Your task to perform on an android device: remove spam from my inbox in the gmail app Image 0: 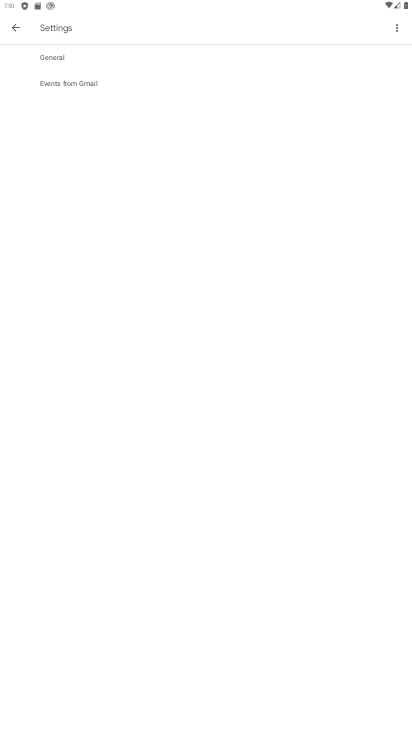
Step 0: press home button
Your task to perform on an android device: remove spam from my inbox in the gmail app Image 1: 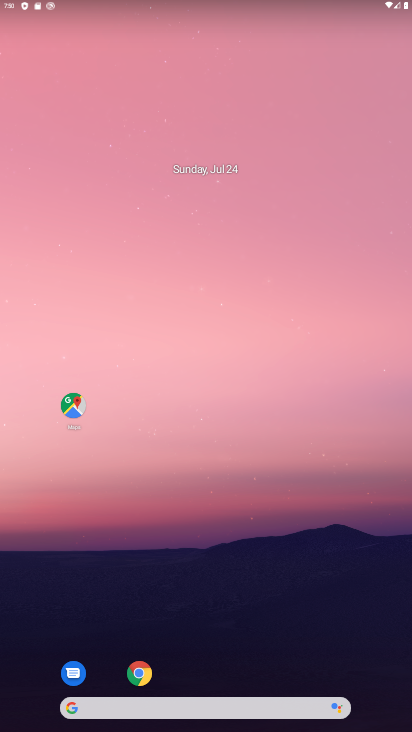
Step 1: drag from (186, 374) to (178, 72)
Your task to perform on an android device: remove spam from my inbox in the gmail app Image 2: 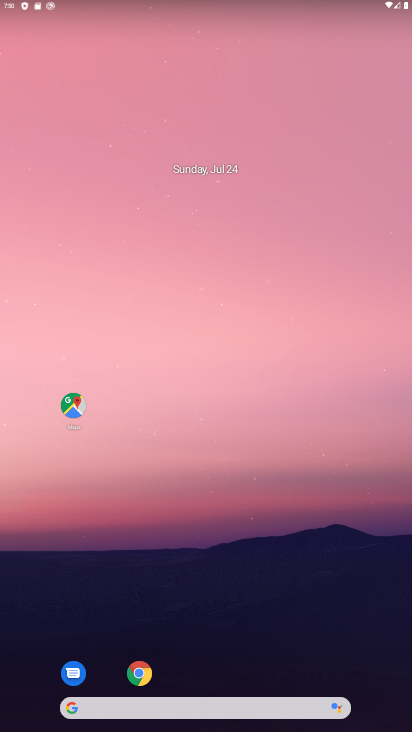
Step 2: drag from (192, 623) to (189, 163)
Your task to perform on an android device: remove spam from my inbox in the gmail app Image 3: 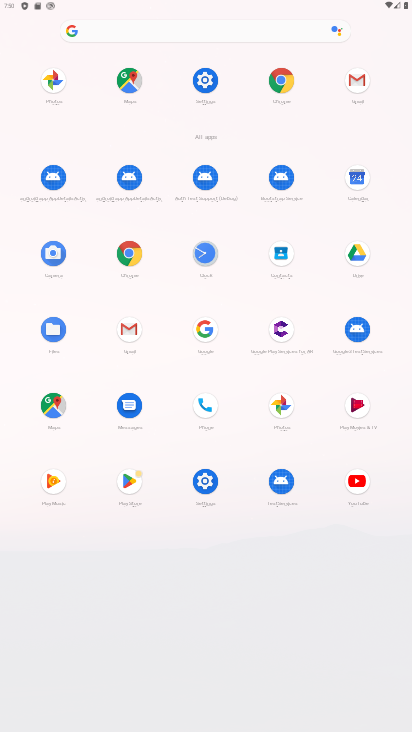
Step 3: click (122, 330)
Your task to perform on an android device: remove spam from my inbox in the gmail app Image 4: 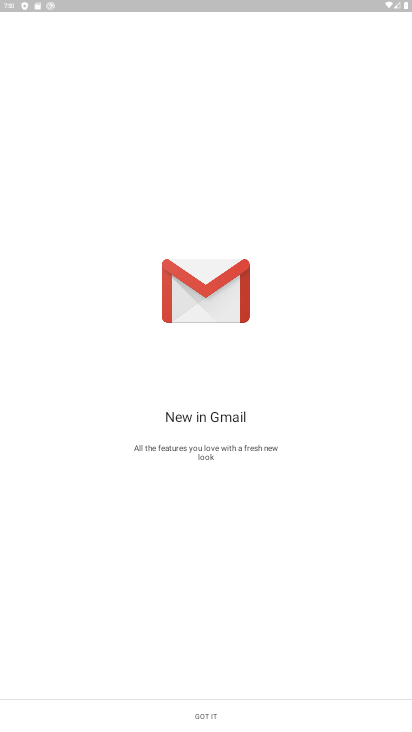
Step 4: click (215, 712)
Your task to perform on an android device: remove spam from my inbox in the gmail app Image 5: 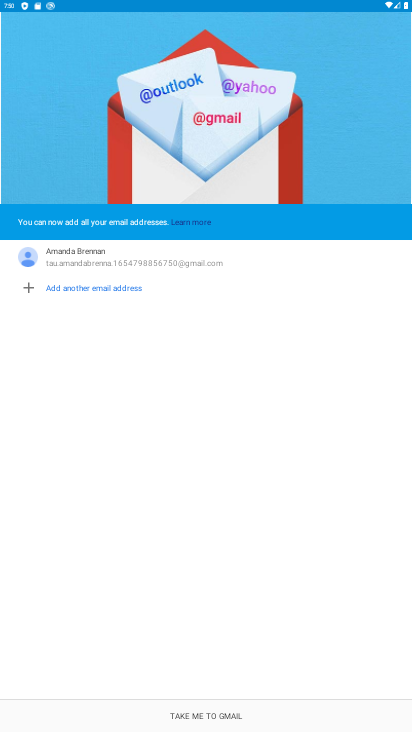
Step 5: click (215, 712)
Your task to perform on an android device: remove spam from my inbox in the gmail app Image 6: 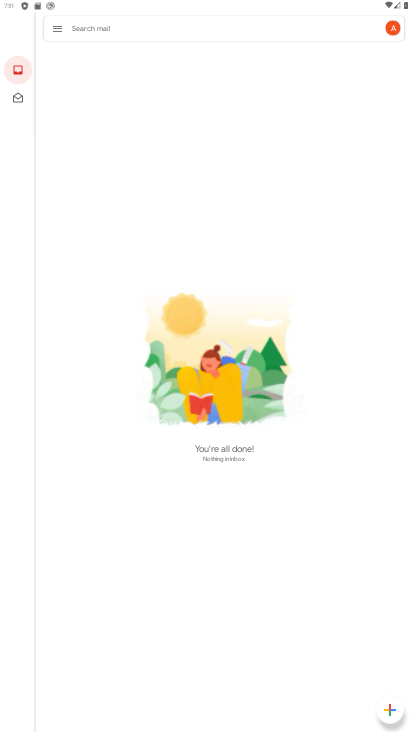
Step 6: click (66, 30)
Your task to perform on an android device: remove spam from my inbox in the gmail app Image 7: 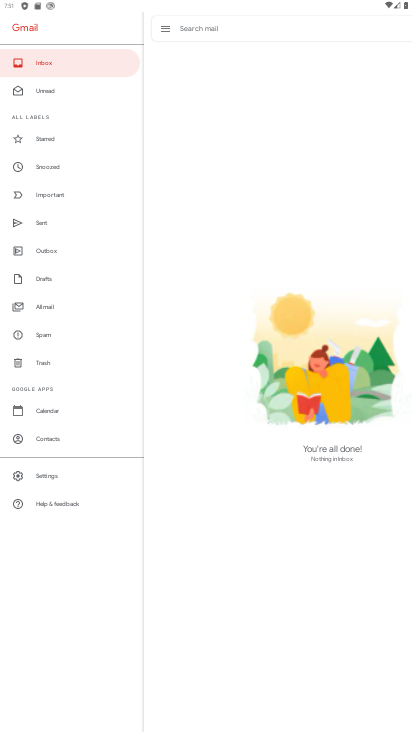
Step 7: click (35, 336)
Your task to perform on an android device: remove spam from my inbox in the gmail app Image 8: 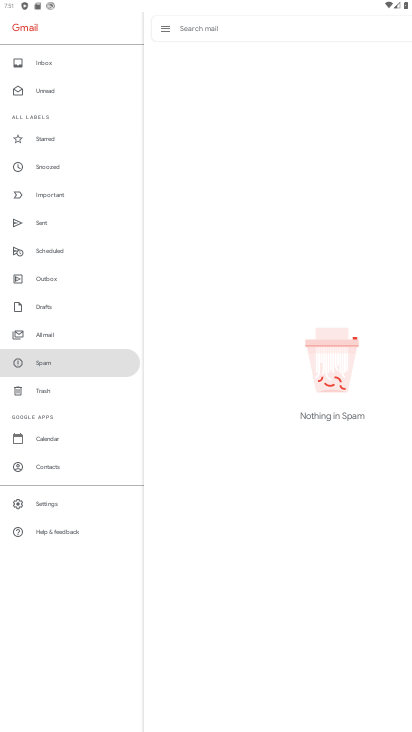
Step 8: task complete